Your task to perform on an android device: Go to wifi settings Image 0: 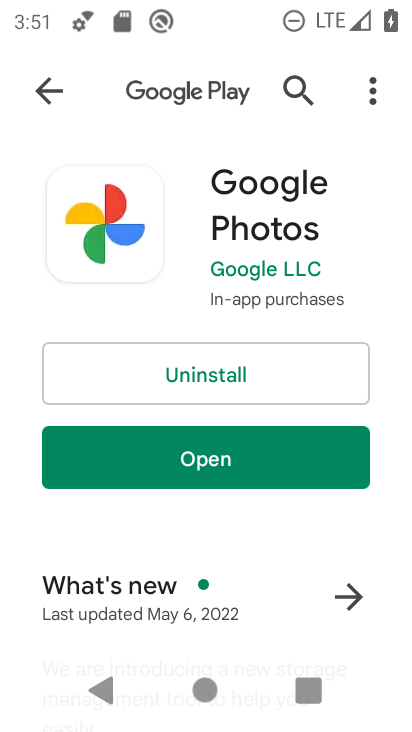
Step 0: press home button
Your task to perform on an android device: Go to wifi settings Image 1: 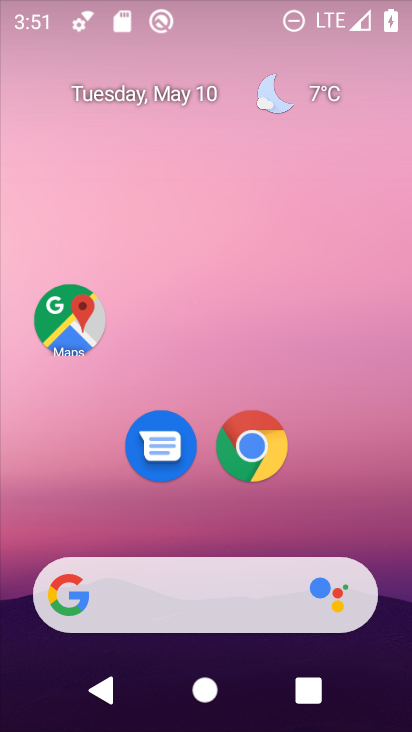
Step 1: drag from (306, 519) to (222, 65)
Your task to perform on an android device: Go to wifi settings Image 2: 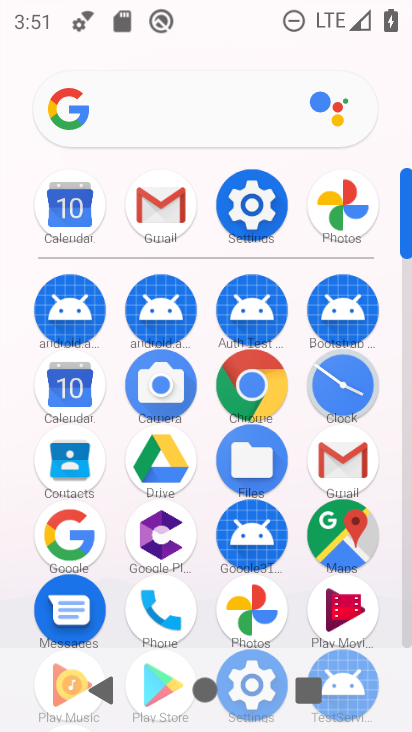
Step 2: click (255, 196)
Your task to perform on an android device: Go to wifi settings Image 3: 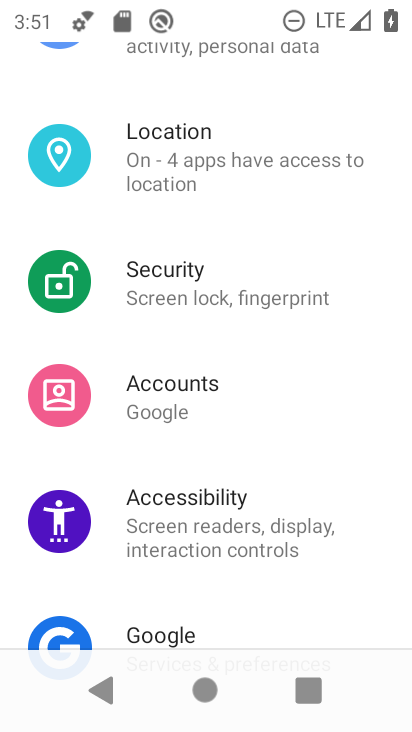
Step 3: drag from (255, 143) to (252, 653)
Your task to perform on an android device: Go to wifi settings Image 4: 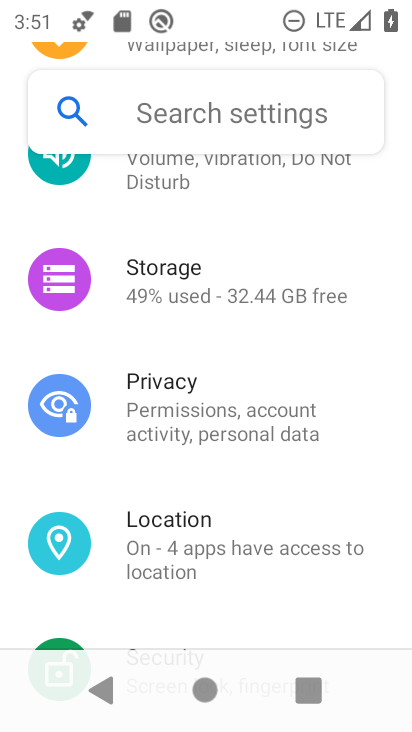
Step 4: drag from (228, 241) to (232, 657)
Your task to perform on an android device: Go to wifi settings Image 5: 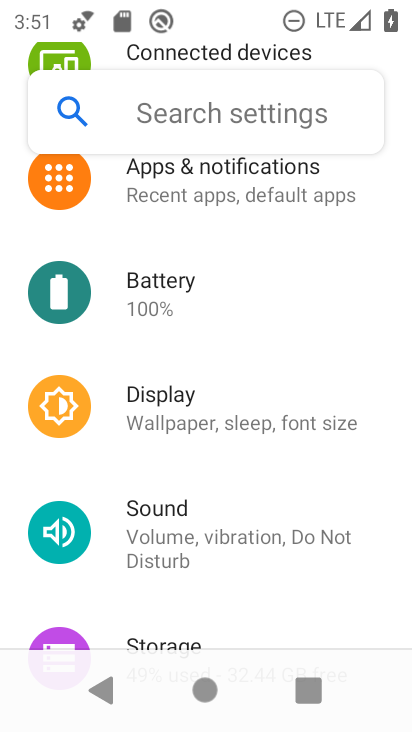
Step 5: drag from (224, 298) to (237, 627)
Your task to perform on an android device: Go to wifi settings Image 6: 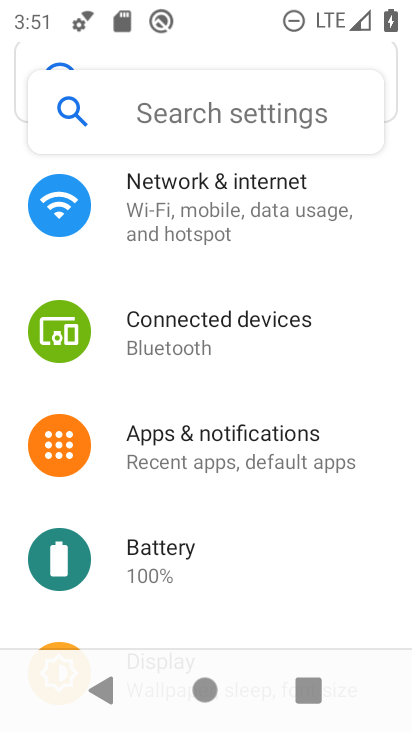
Step 6: click (213, 211)
Your task to perform on an android device: Go to wifi settings Image 7: 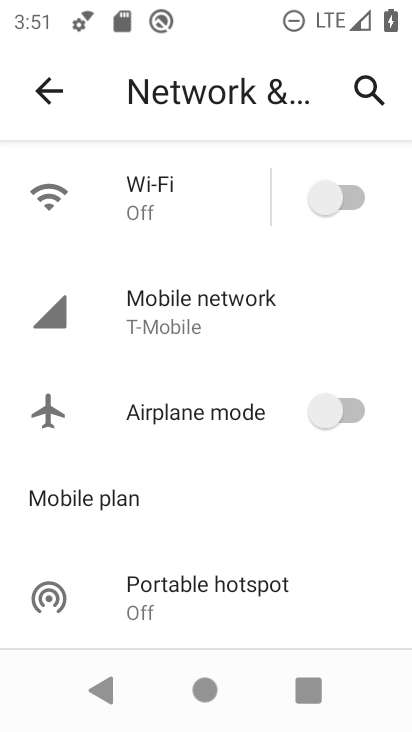
Step 7: click (176, 197)
Your task to perform on an android device: Go to wifi settings Image 8: 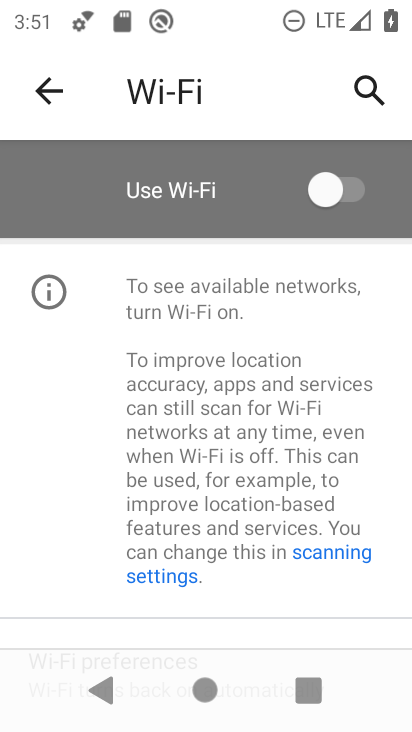
Step 8: task complete